Your task to perform on an android device: Open settings on Google Maps Image 0: 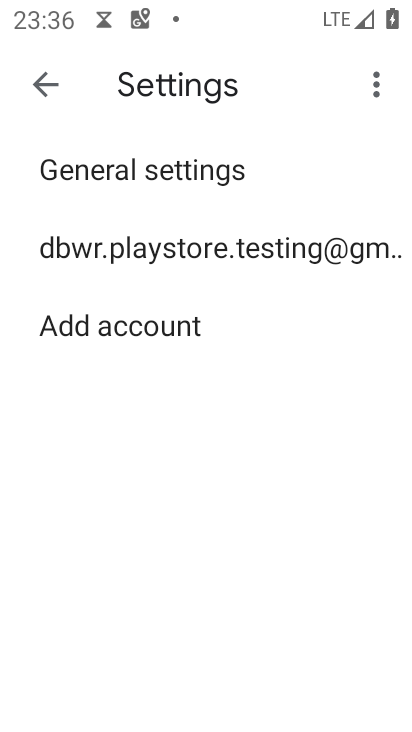
Step 0: press home button
Your task to perform on an android device: Open settings on Google Maps Image 1: 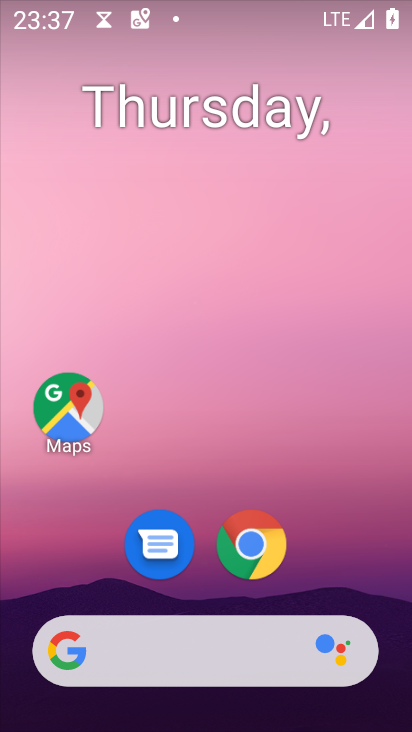
Step 1: click (58, 408)
Your task to perform on an android device: Open settings on Google Maps Image 2: 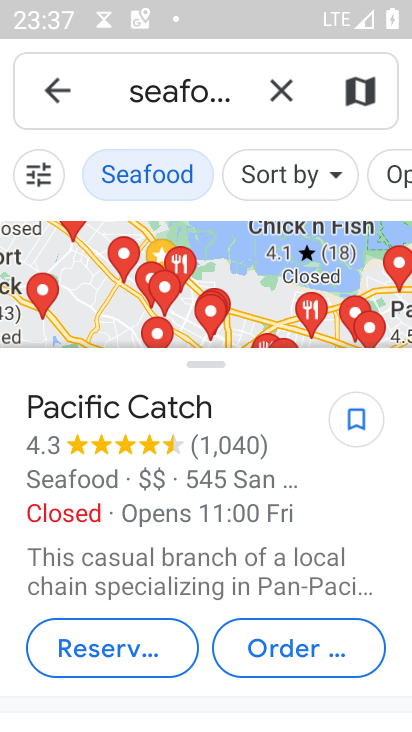
Step 2: click (55, 86)
Your task to perform on an android device: Open settings on Google Maps Image 3: 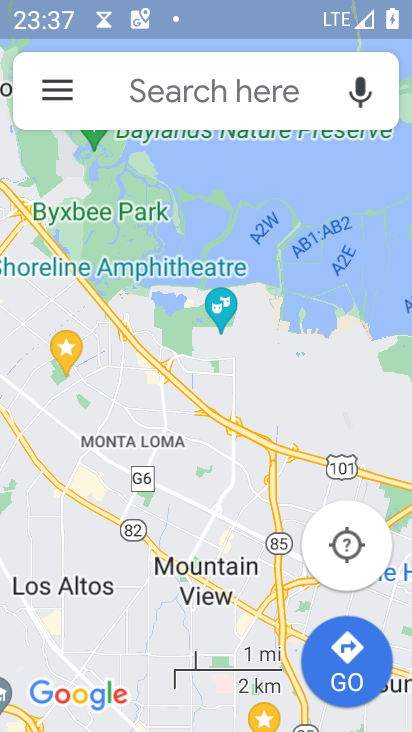
Step 3: click (55, 86)
Your task to perform on an android device: Open settings on Google Maps Image 4: 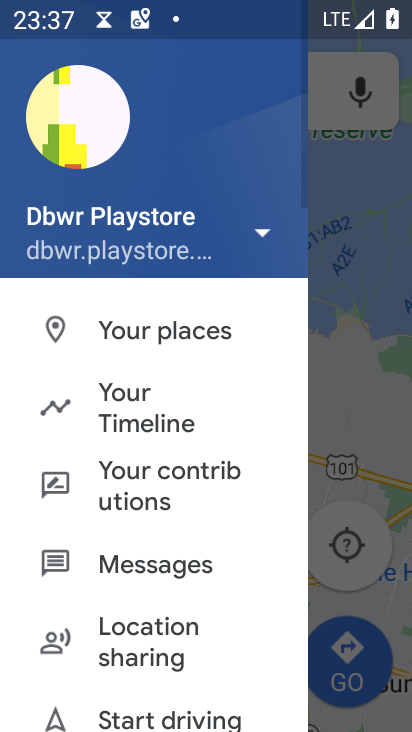
Step 4: drag from (131, 658) to (151, 197)
Your task to perform on an android device: Open settings on Google Maps Image 5: 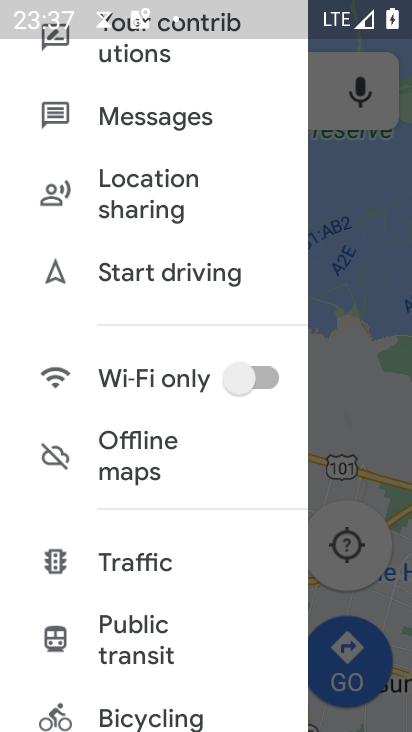
Step 5: drag from (136, 665) to (187, 284)
Your task to perform on an android device: Open settings on Google Maps Image 6: 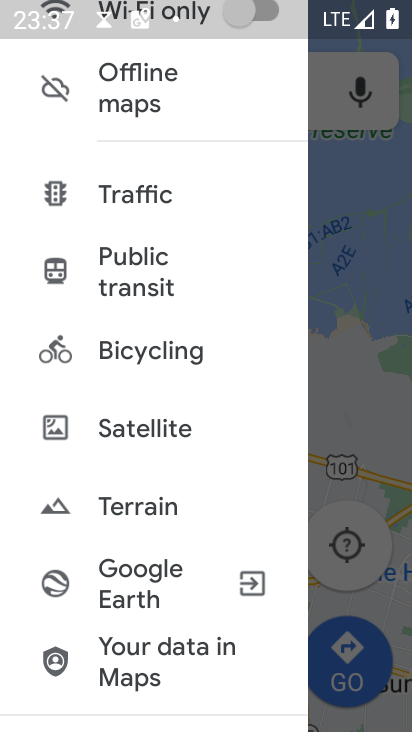
Step 6: drag from (134, 676) to (151, 345)
Your task to perform on an android device: Open settings on Google Maps Image 7: 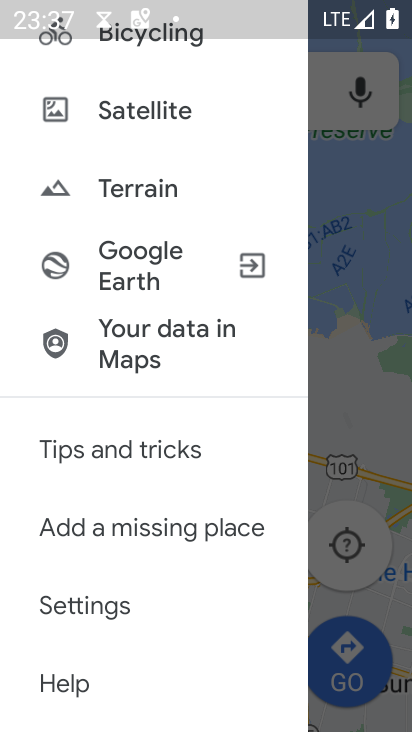
Step 7: click (75, 607)
Your task to perform on an android device: Open settings on Google Maps Image 8: 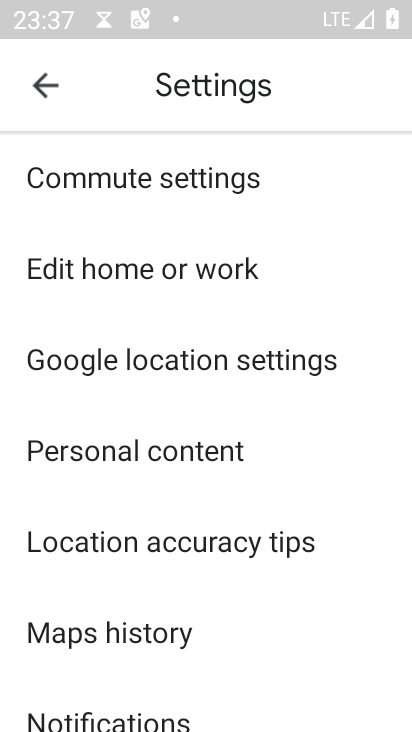
Step 8: task complete